Your task to perform on an android device: Go to Wikipedia Image 0: 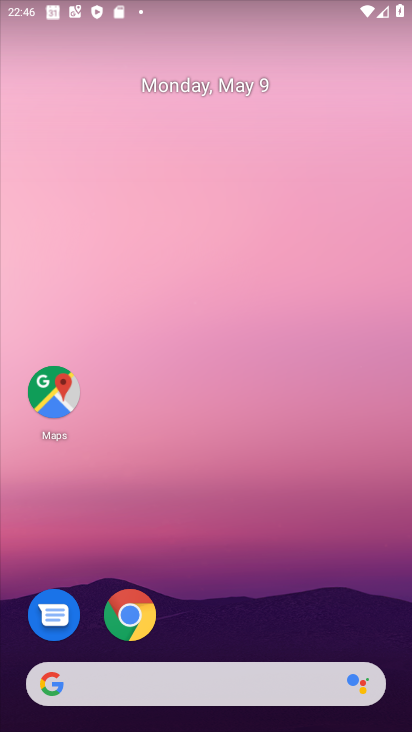
Step 0: click (127, 615)
Your task to perform on an android device: Go to Wikipedia Image 1: 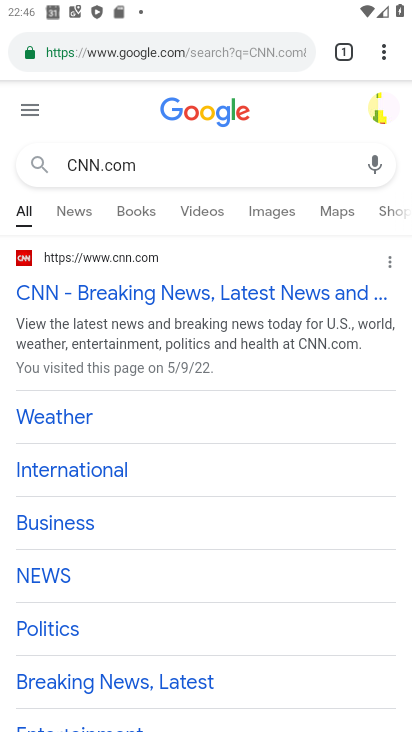
Step 1: click (56, 56)
Your task to perform on an android device: Go to Wikipedia Image 2: 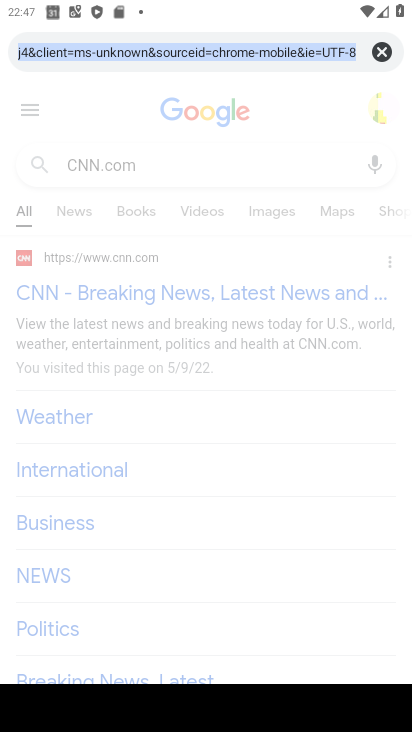
Step 2: type "wikipedia"
Your task to perform on an android device: Go to Wikipedia Image 3: 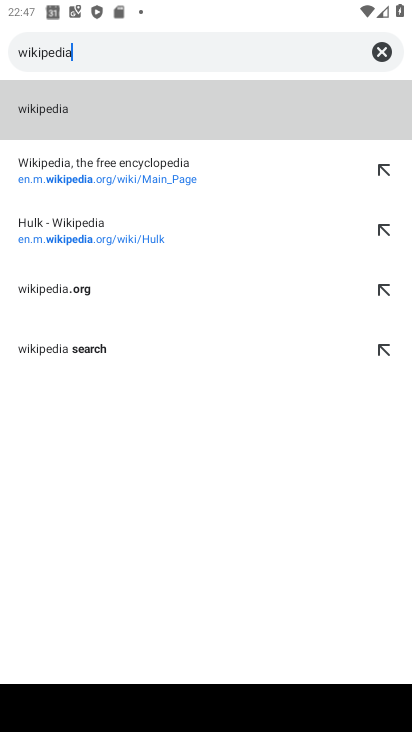
Step 3: click (145, 122)
Your task to perform on an android device: Go to Wikipedia Image 4: 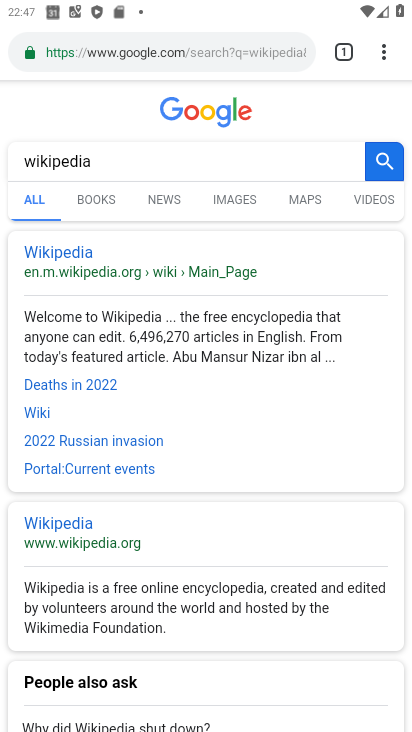
Step 4: task complete